Your task to perform on an android device: check out phone information Image 0: 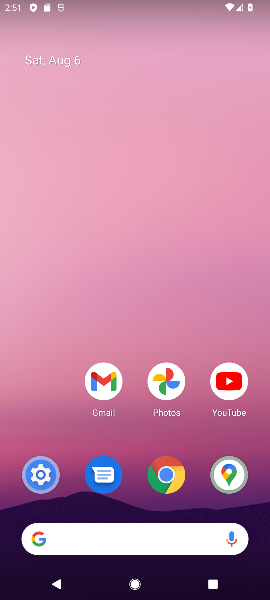
Step 0: drag from (30, 580) to (201, 245)
Your task to perform on an android device: check out phone information Image 1: 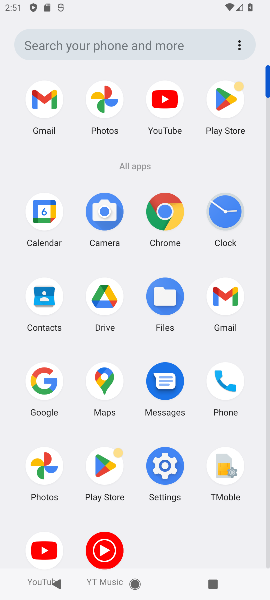
Step 1: click (220, 375)
Your task to perform on an android device: check out phone information Image 2: 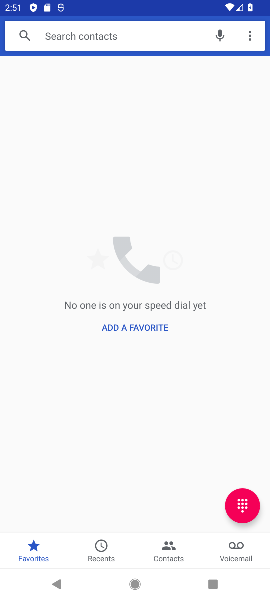
Step 2: task complete